Your task to perform on an android device: star an email in the gmail app Image 0: 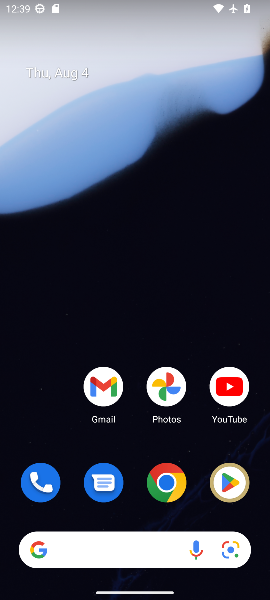
Step 0: drag from (137, 462) to (138, 74)
Your task to perform on an android device: star an email in the gmail app Image 1: 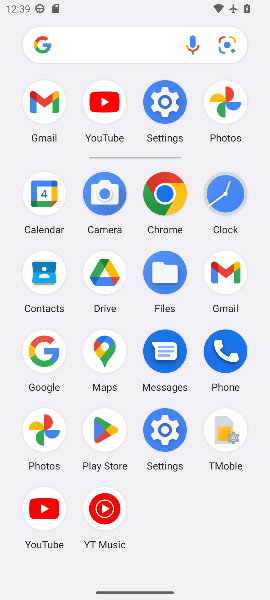
Step 1: click (46, 125)
Your task to perform on an android device: star an email in the gmail app Image 2: 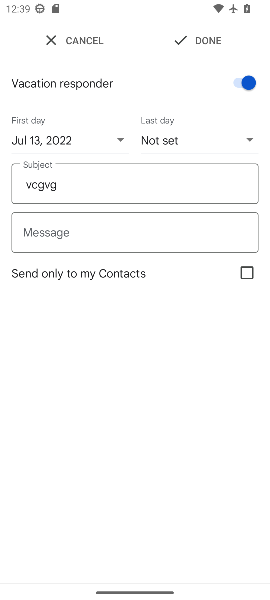
Step 2: press back button
Your task to perform on an android device: star an email in the gmail app Image 3: 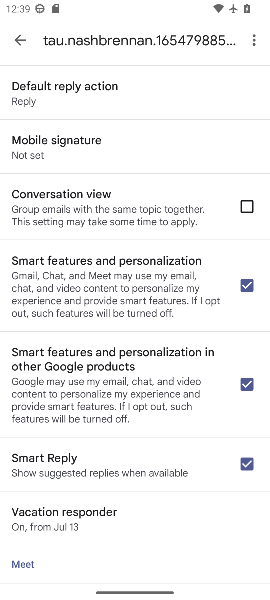
Step 3: click (20, 37)
Your task to perform on an android device: star an email in the gmail app Image 4: 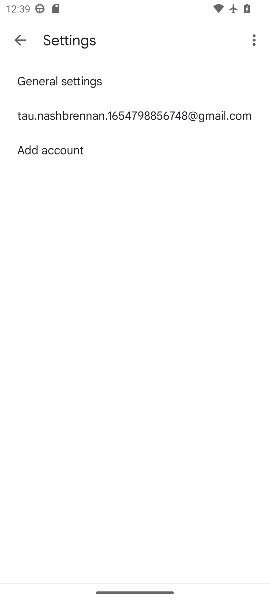
Step 4: click (20, 37)
Your task to perform on an android device: star an email in the gmail app Image 5: 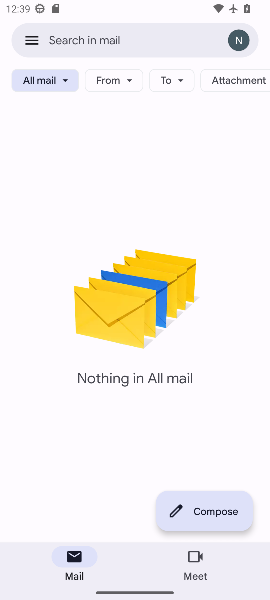
Step 5: click (32, 43)
Your task to perform on an android device: star an email in the gmail app Image 6: 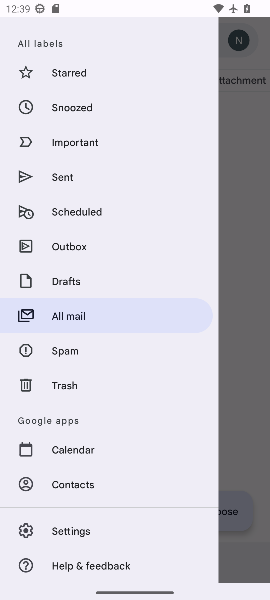
Step 6: click (106, 321)
Your task to perform on an android device: star an email in the gmail app Image 7: 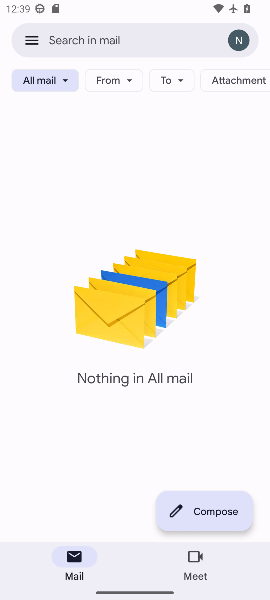
Step 7: task complete